Your task to perform on an android device: turn smart compose on in the gmail app Image 0: 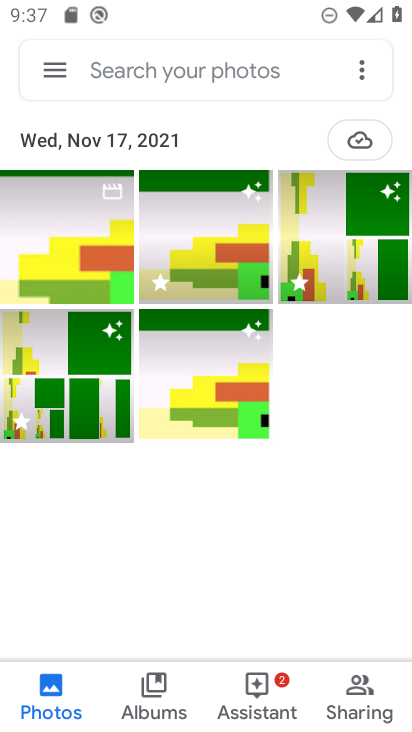
Step 0: press home button
Your task to perform on an android device: turn smart compose on in the gmail app Image 1: 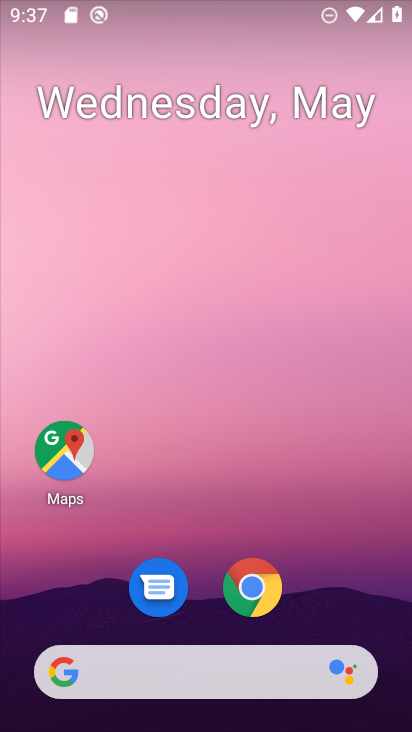
Step 1: drag from (223, 719) to (177, 186)
Your task to perform on an android device: turn smart compose on in the gmail app Image 2: 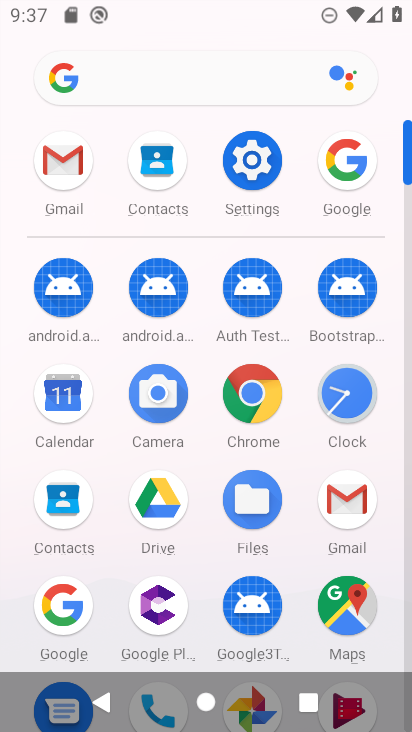
Step 2: click (351, 504)
Your task to perform on an android device: turn smart compose on in the gmail app Image 3: 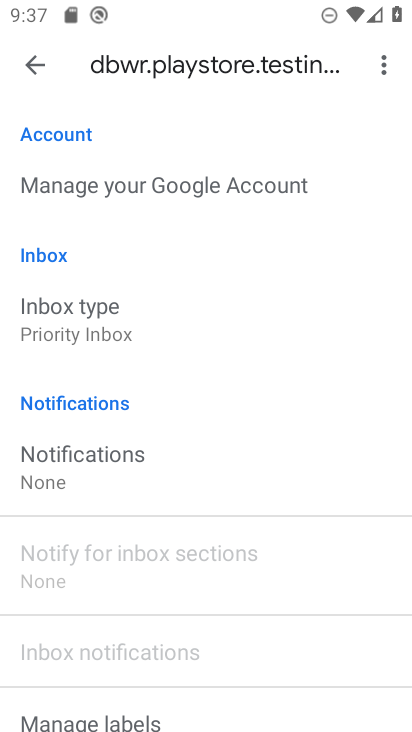
Step 3: task complete